Your task to perform on an android device: turn on notifications settings in the gmail app Image 0: 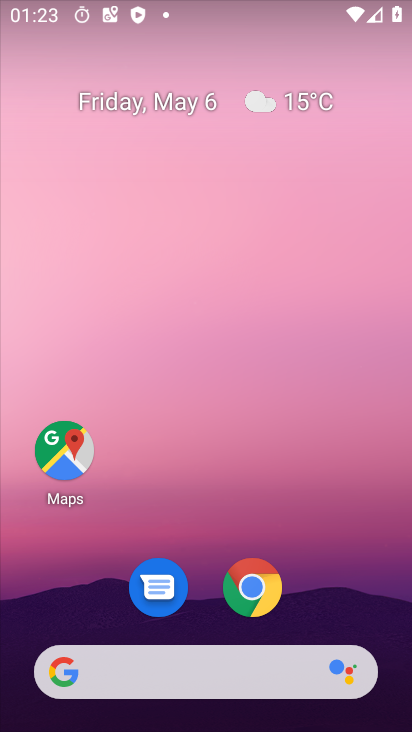
Step 0: drag from (327, 437) to (290, 282)
Your task to perform on an android device: turn on notifications settings in the gmail app Image 1: 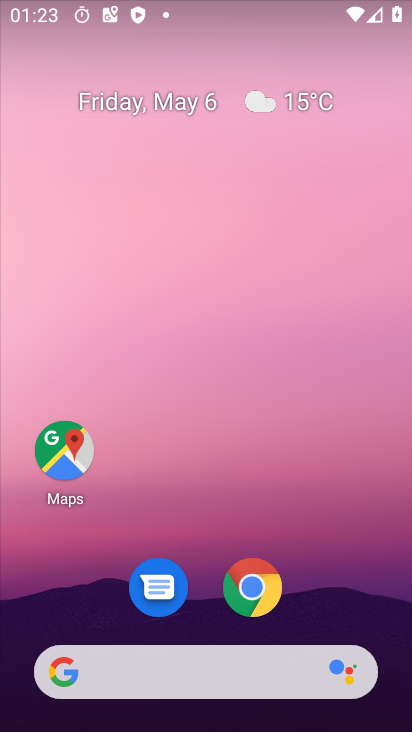
Step 1: drag from (337, 433) to (314, 252)
Your task to perform on an android device: turn on notifications settings in the gmail app Image 2: 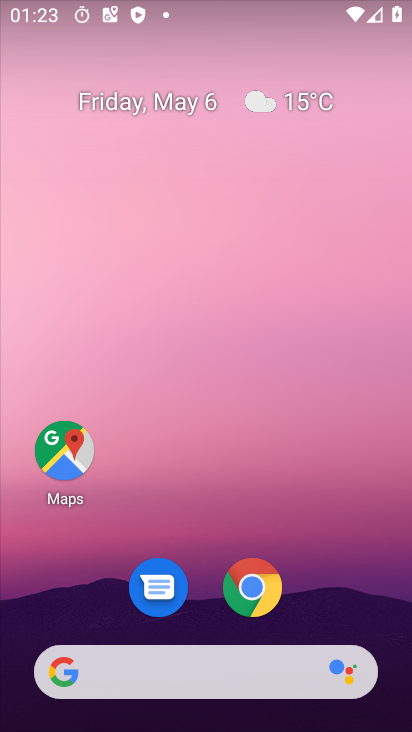
Step 2: drag from (376, 579) to (316, 259)
Your task to perform on an android device: turn on notifications settings in the gmail app Image 3: 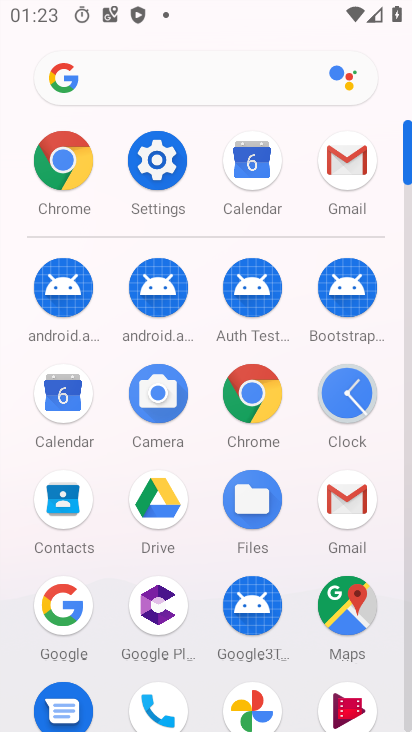
Step 3: click (338, 520)
Your task to perform on an android device: turn on notifications settings in the gmail app Image 4: 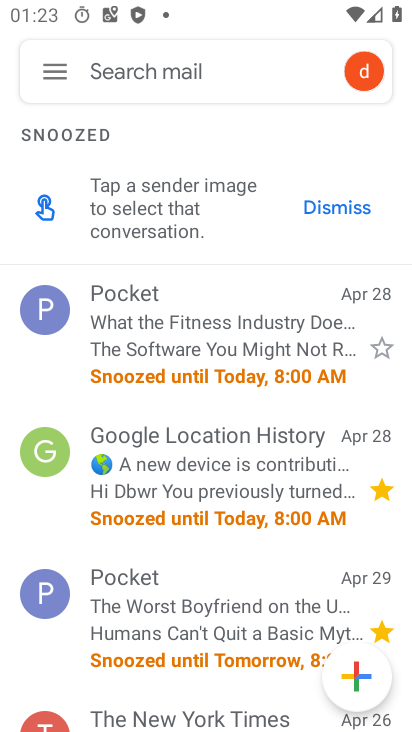
Step 4: click (44, 78)
Your task to perform on an android device: turn on notifications settings in the gmail app Image 5: 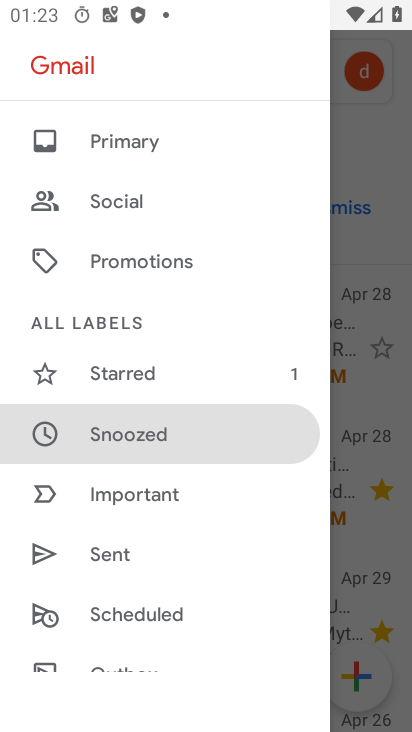
Step 5: drag from (253, 531) to (207, 233)
Your task to perform on an android device: turn on notifications settings in the gmail app Image 6: 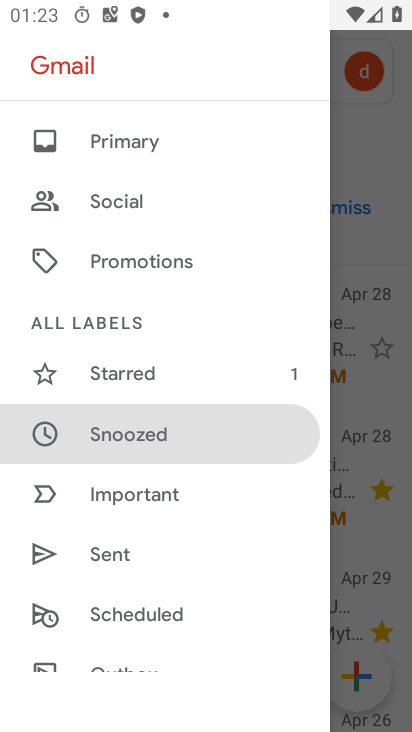
Step 6: drag from (239, 651) to (211, 268)
Your task to perform on an android device: turn on notifications settings in the gmail app Image 7: 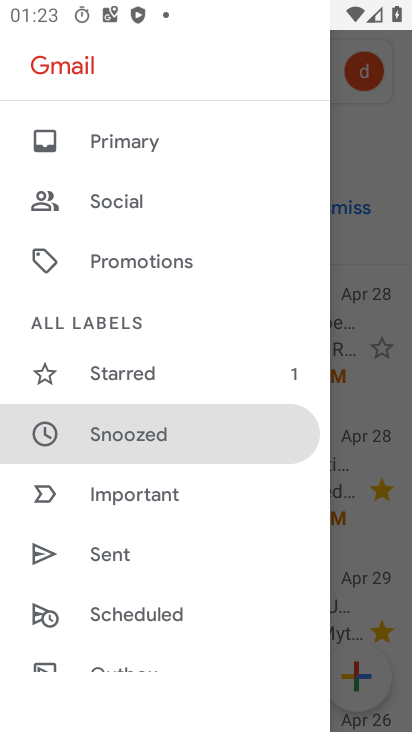
Step 7: drag from (248, 599) to (222, 315)
Your task to perform on an android device: turn on notifications settings in the gmail app Image 8: 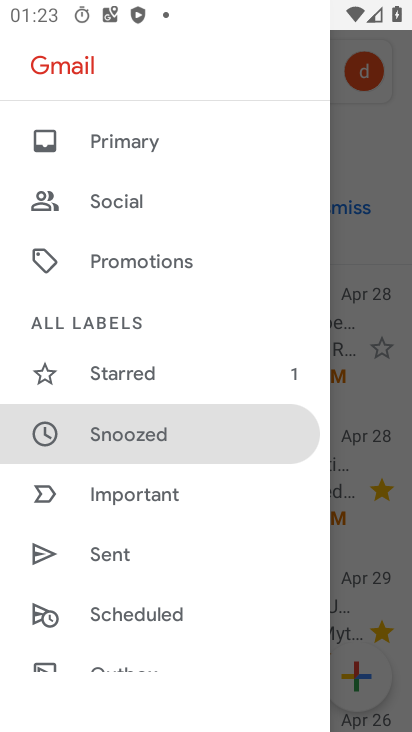
Step 8: drag from (291, 652) to (245, 279)
Your task to perform on an android device: turn on notifications settings in the gmail app Image 9: 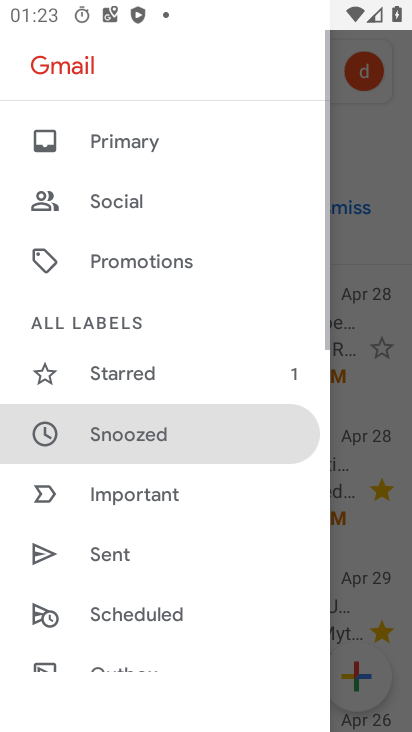
Step 9: drag from (240, 651) to (234, 297)
Your task to perform on an android device: turn on notifications settings in the gmail app Image 10: 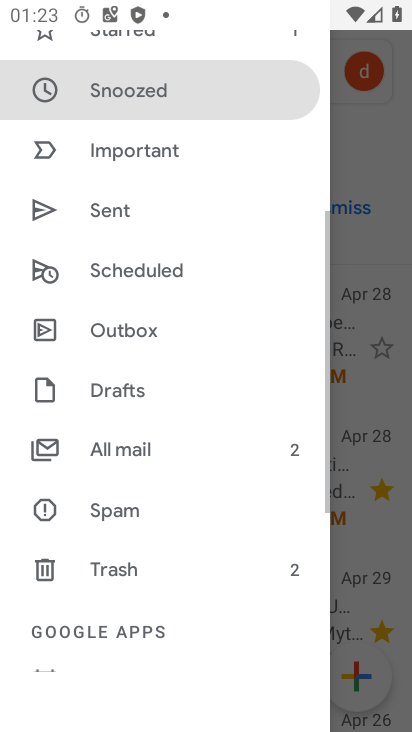
Step 10: drag from (223, 630) to (179, 265)
Your task to perform on an android device: turn on notifications settings in the gmail app Image 11: 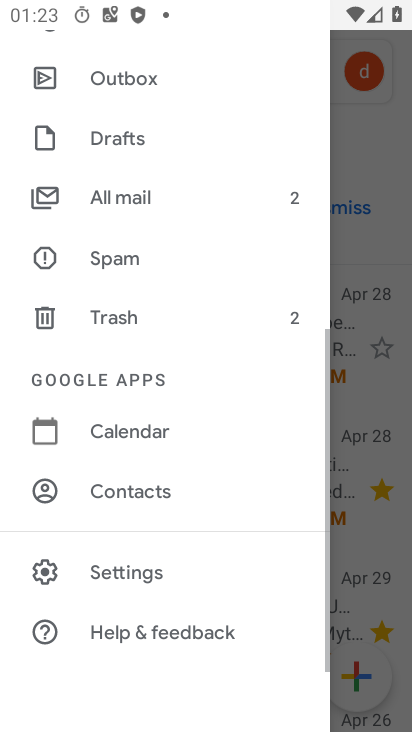
Step 11: click (104, 563)
Your task to perform on an android device: turn on notifications settings in the gmail app Image 12: 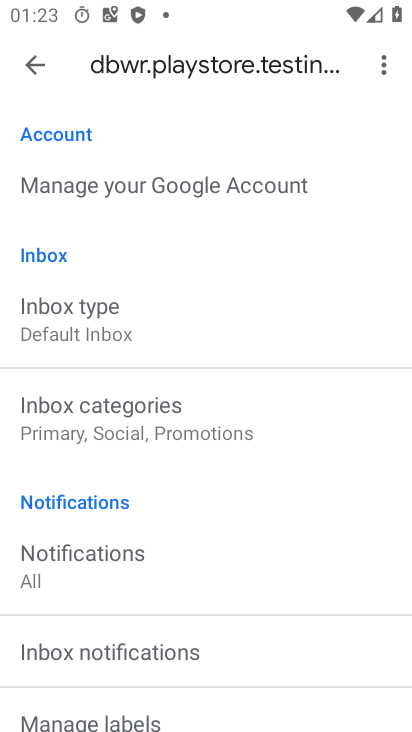
Step 12: click (88, 547)
Your task to perform on an android device: turn on notifications settings in the gmail app Image 13: 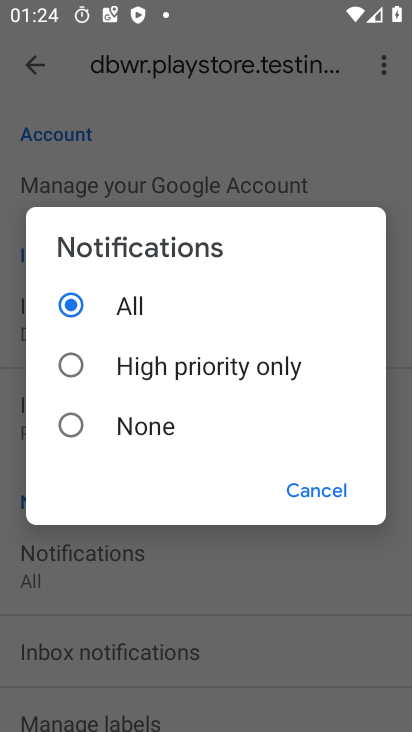
Step 13: task complete